Your task to perform on an android device: check android version Image 0: 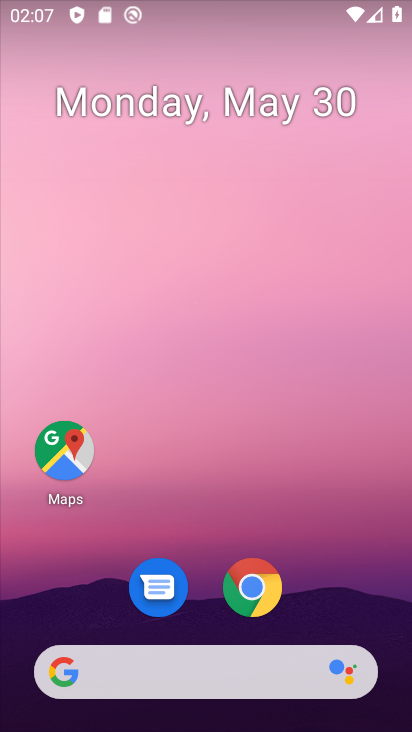
Step 0: drag from (153, 722) to (169, 47)
Your task to perform on an android device: check android version Image 1: 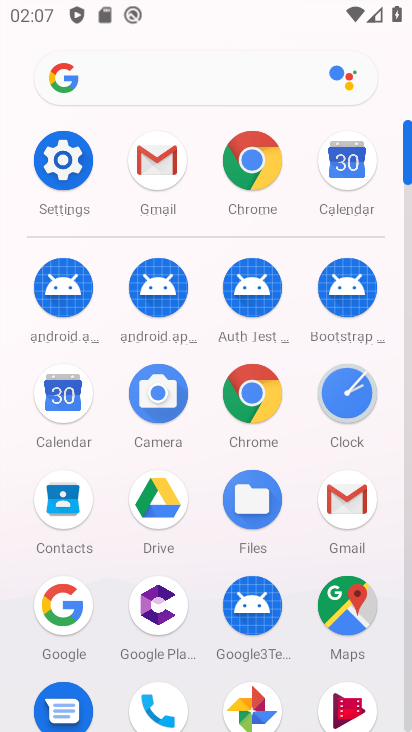
Step 1: click (53, 162)
Your task to perform on an android device: check android version Image 2: 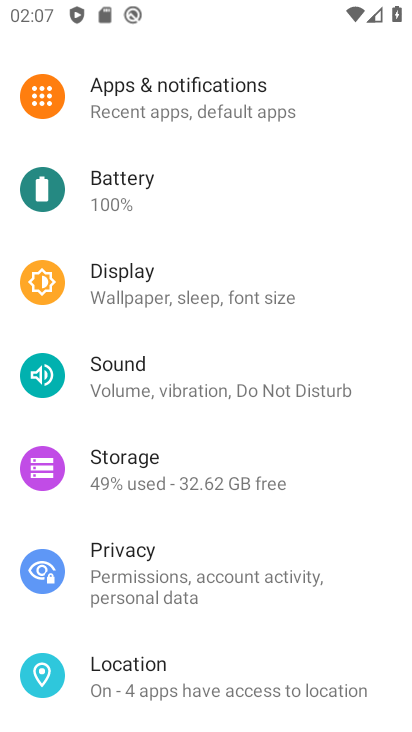
Step 2: drag from (277, 662) to (347, 81)
Your task to perform on an android device: check android version Image 3: 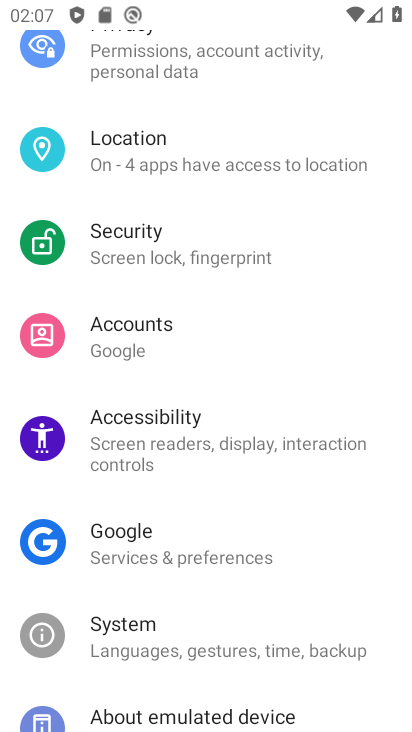
Step 3: drag from (198, 673) to (276, 75)
Your task to perform on an android device: check android version Image 4: 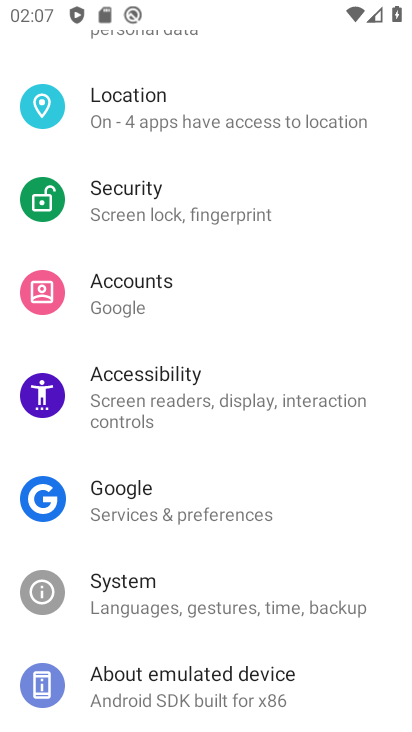
Step 4: click (218, 701)
Your task to perform on an android device: check android version Image 5: 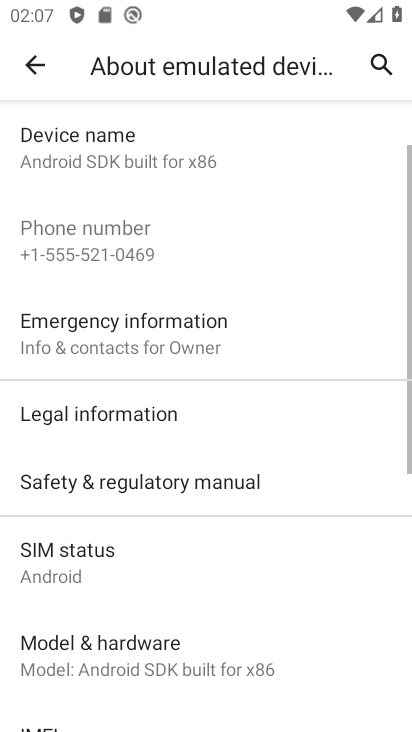
Step 5: drag from (241, 480) to (201, 85)
Your task to perform on an android device: check android version Image 6: 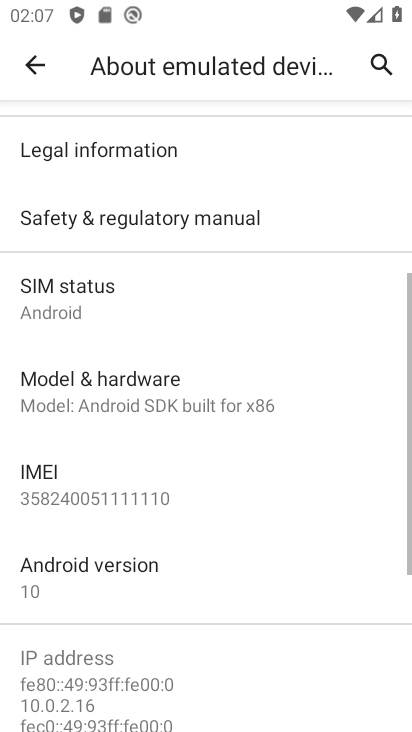
Step 6: click (92, 577)
Your task to perform on an android device: check android version Image 7: 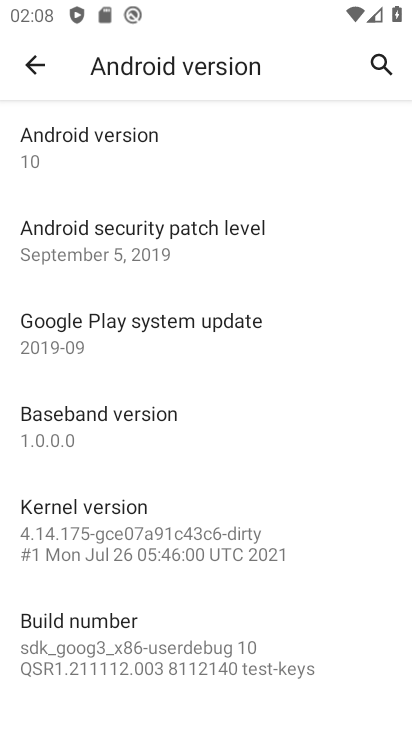
Step 7: click (170, 152)
Your task to perform on an android device: check android version Image 8: 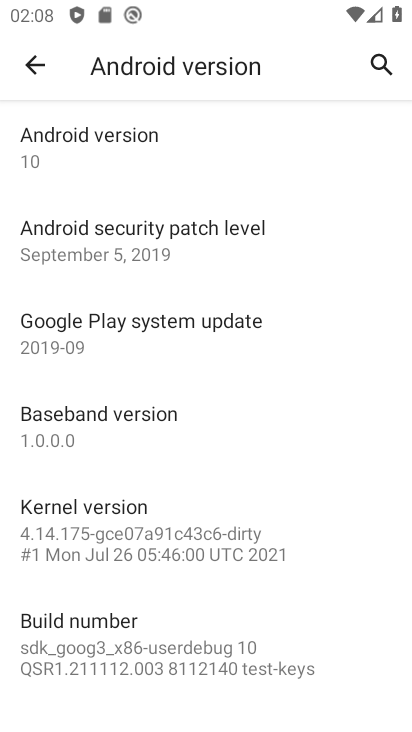
Step 8: task complete